Your task to perform on an android device: visit the assistant section in the google photos Image 0: 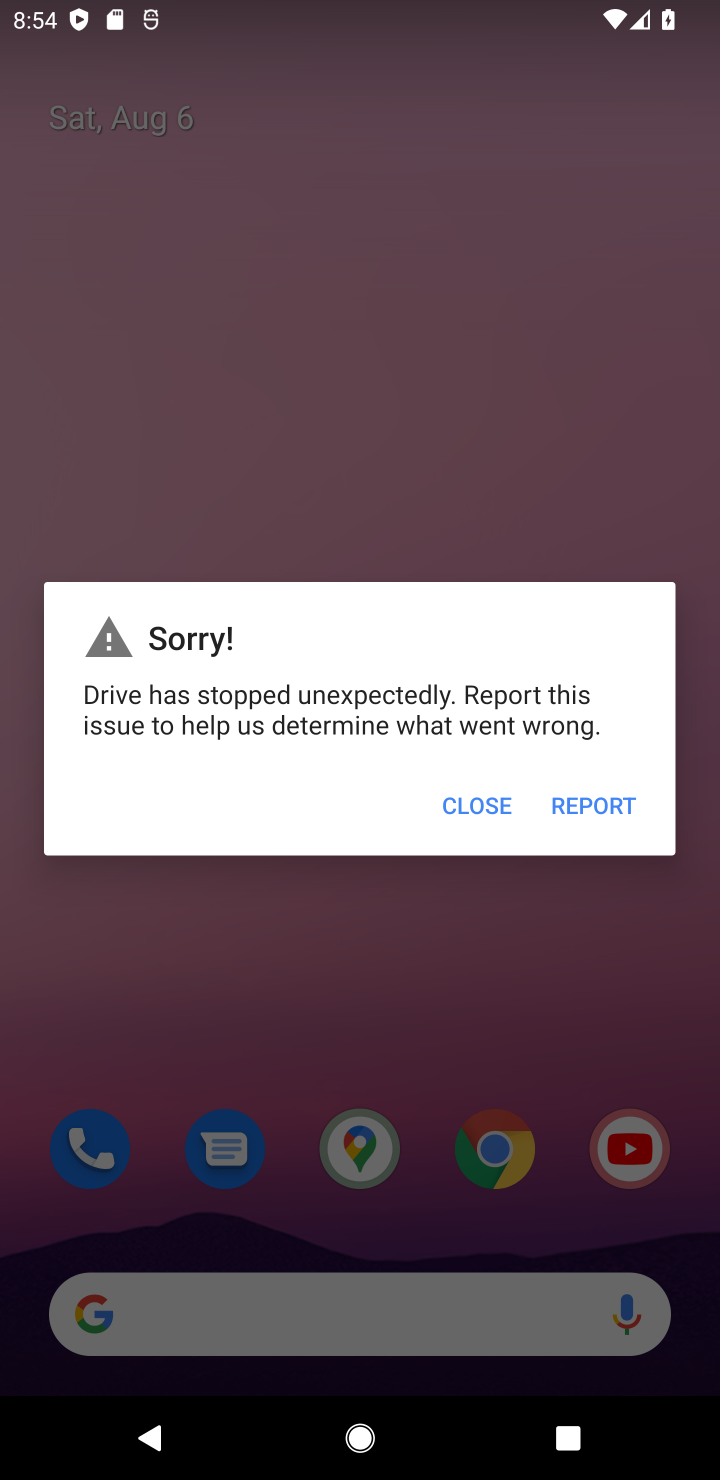
Step 0: click (480, 796)
Your task to perform on an android device: visit the assistant section in the google photos Image 1: 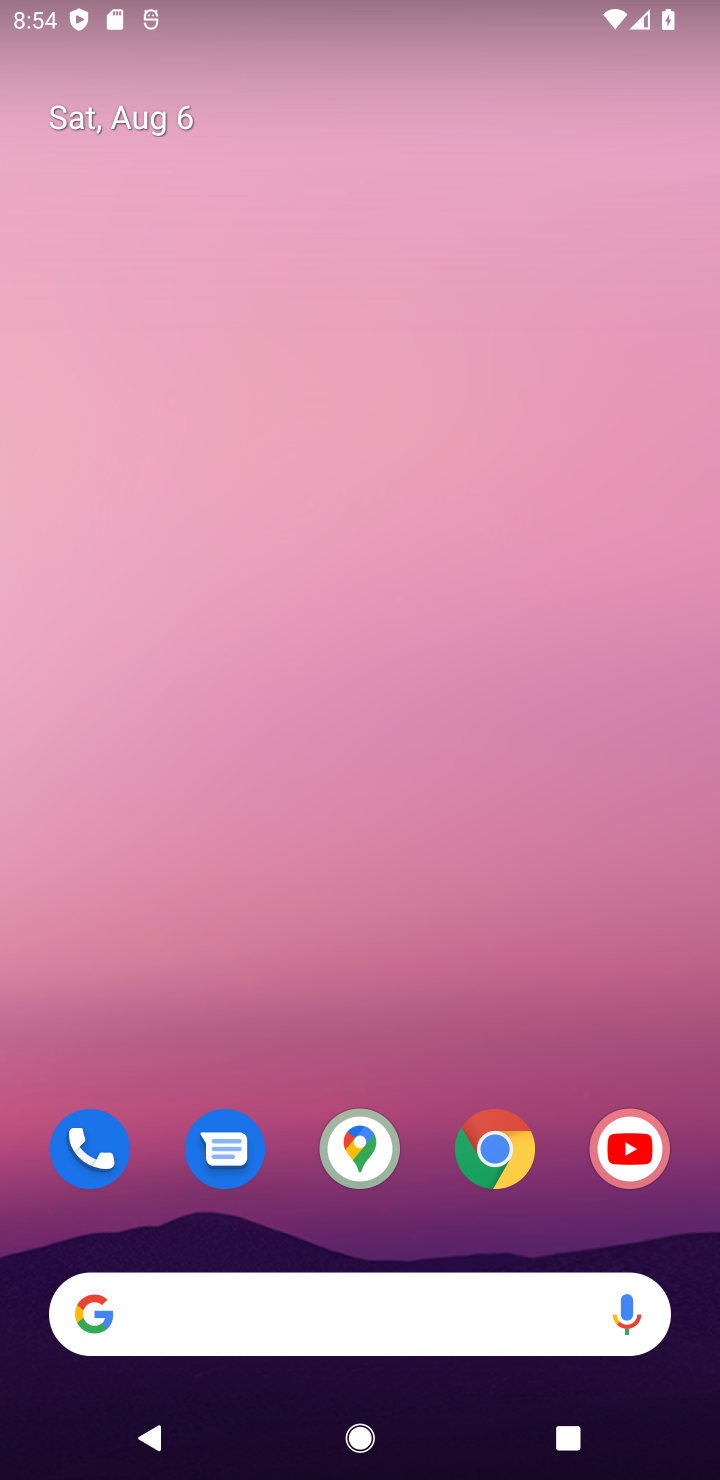
Step 1: drag from (338, 1323) to (111, 68)
Your task to perform on an android device: visit the assistant section in the google photos Image 2: 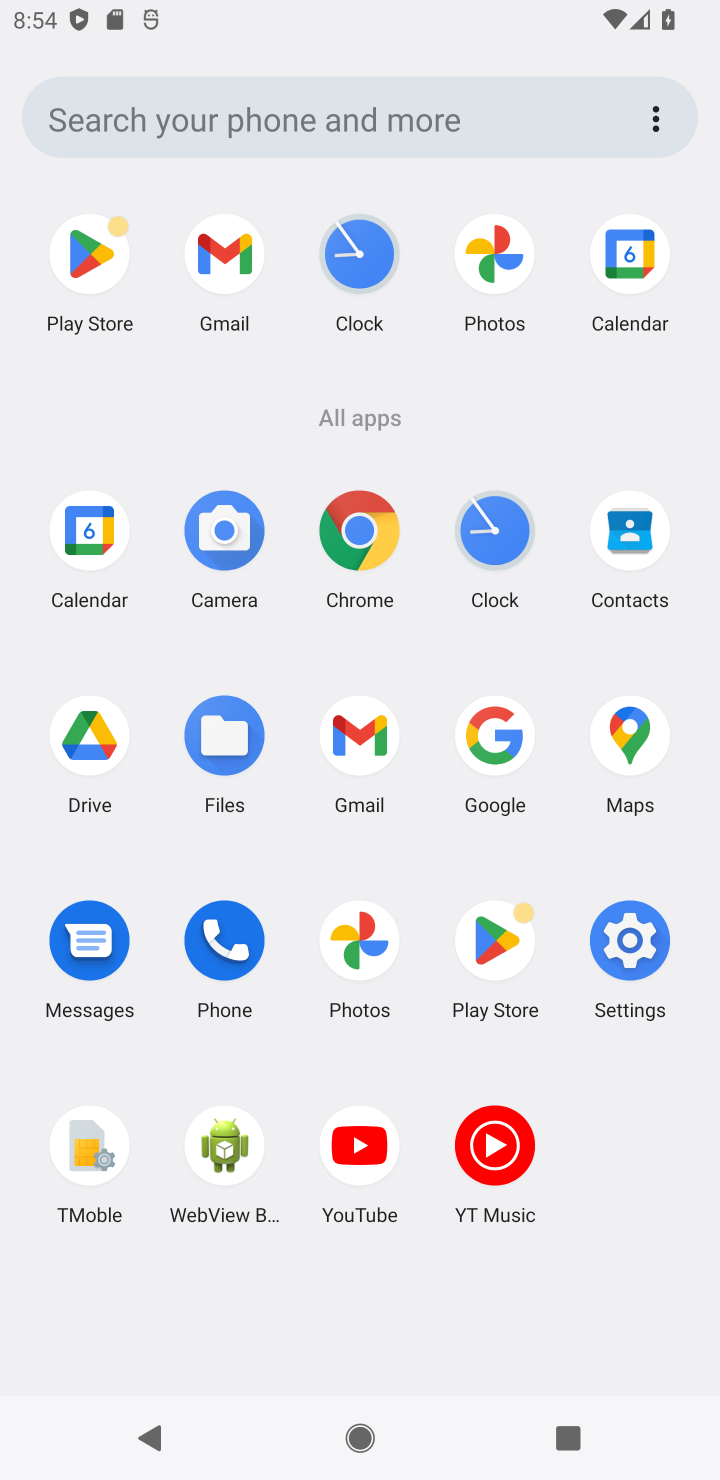
Step 2: click (391, 973)
Your task to perform on an android device: visit the assistant section in the google photos Image 3: 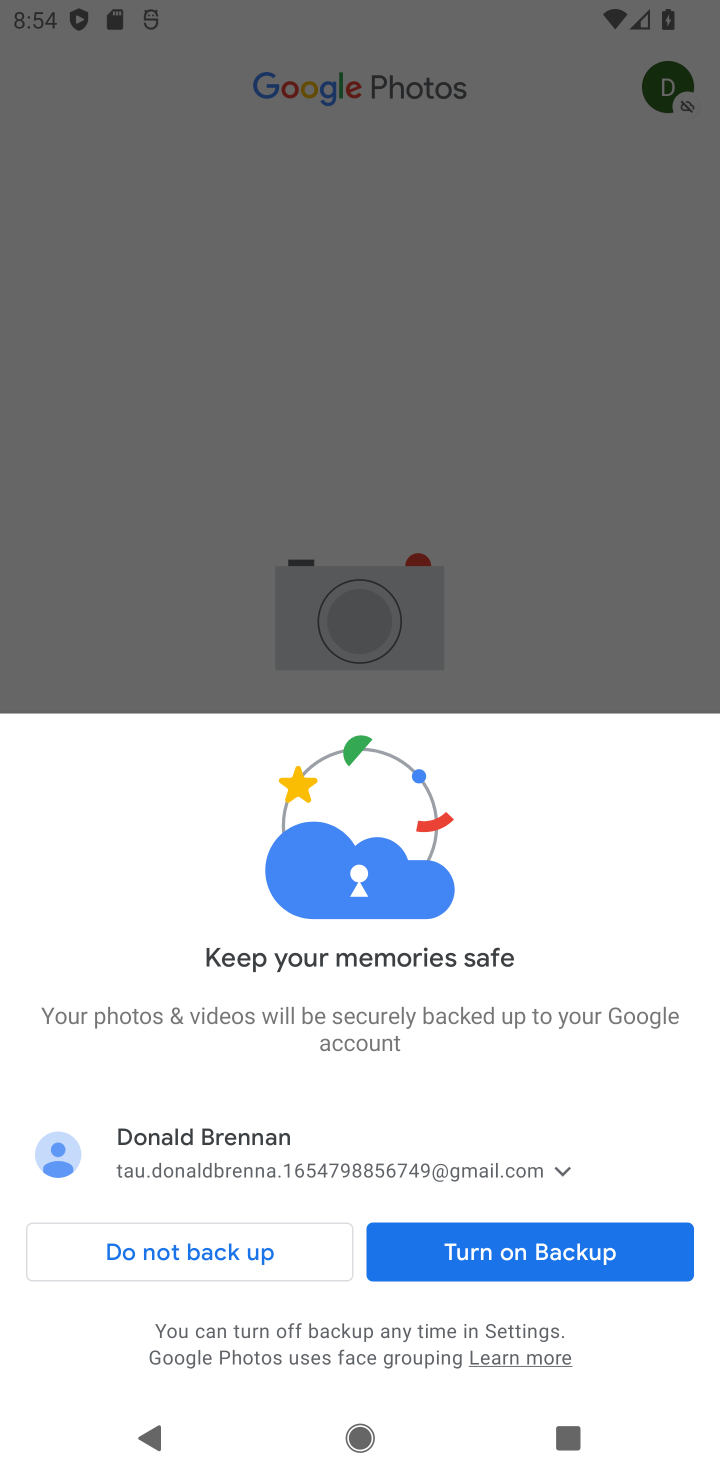
Step 3: click (428, 1275)
Your task to perform on an android device: visit the assistant section in the google photos Image 4: 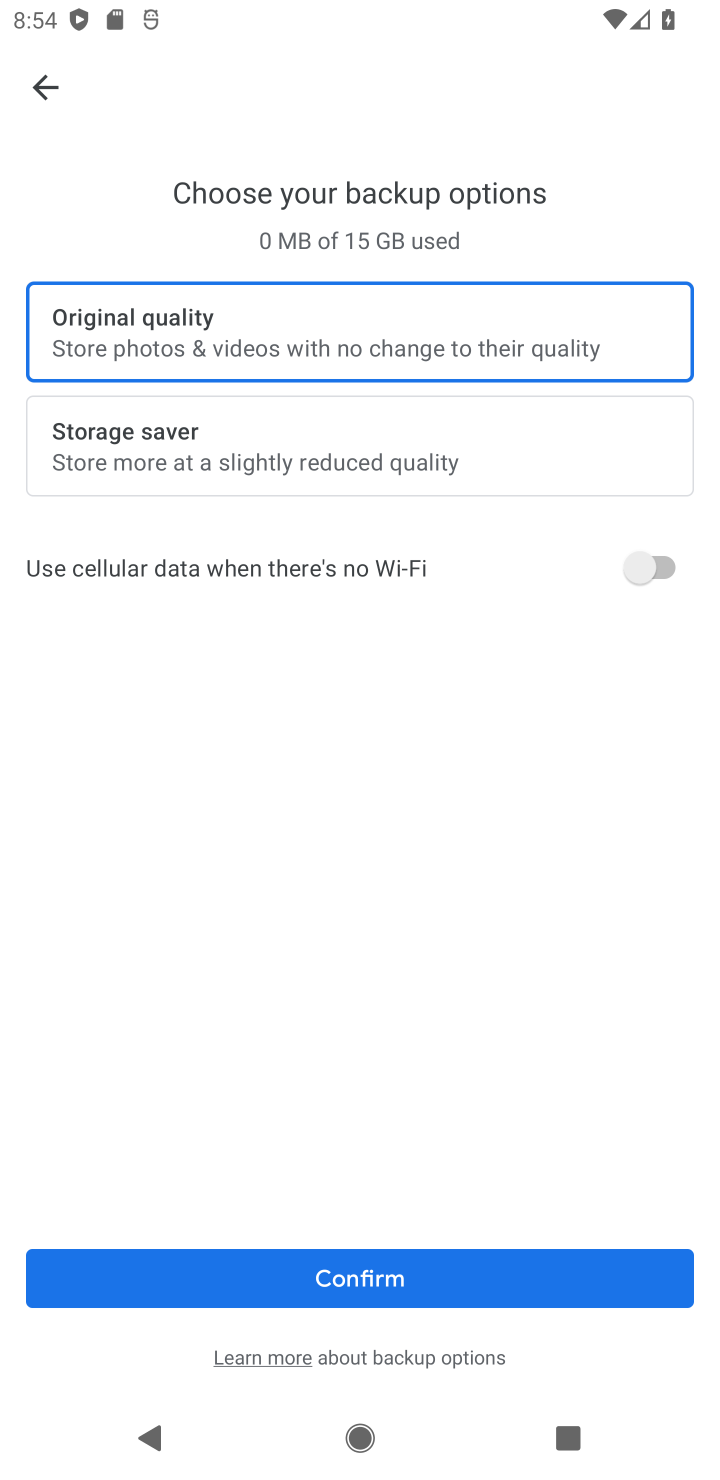
Step 4: click (339, 1275)
Your task to perform on an android device: visit the assistant section in the google photos Image 5: 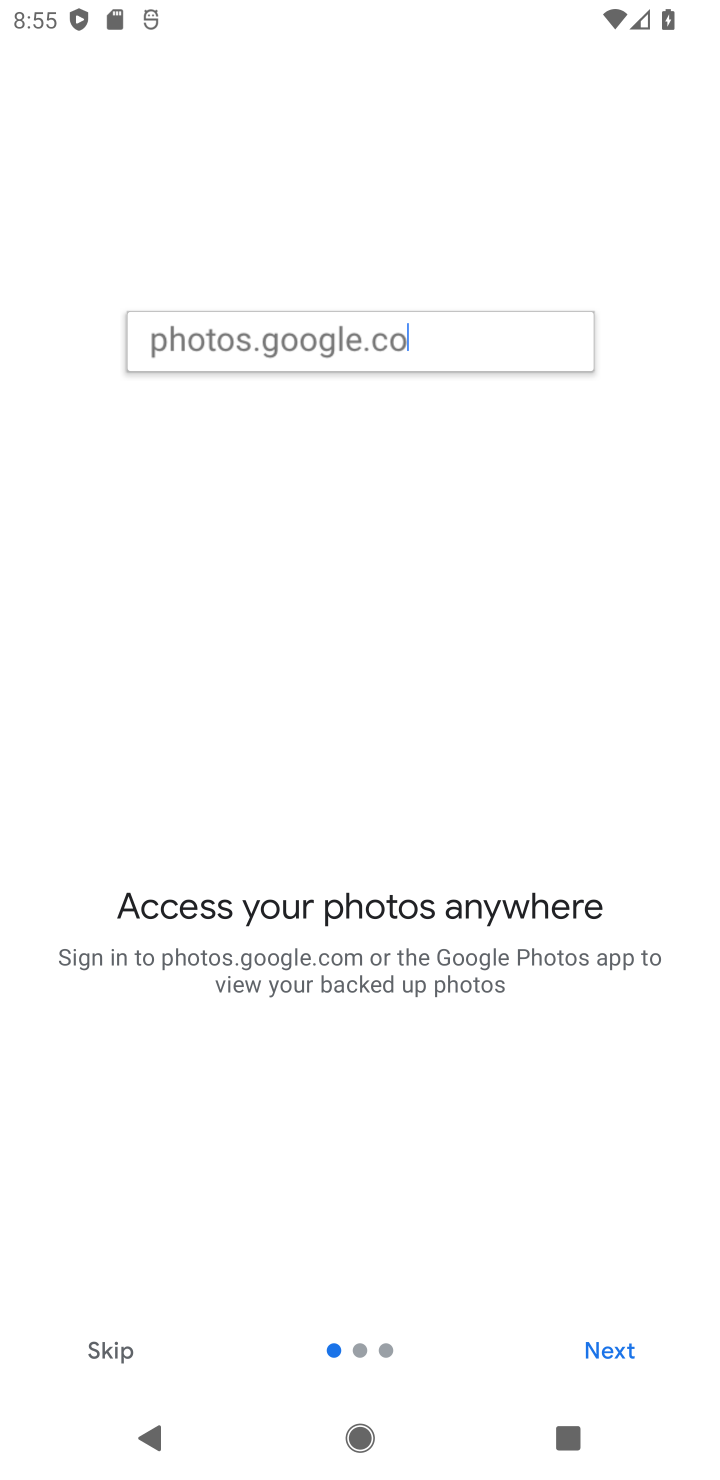
Step 5: click (88, 1359)
Your task to perform on an android device: visit the assistant section in the google photos Image 6: 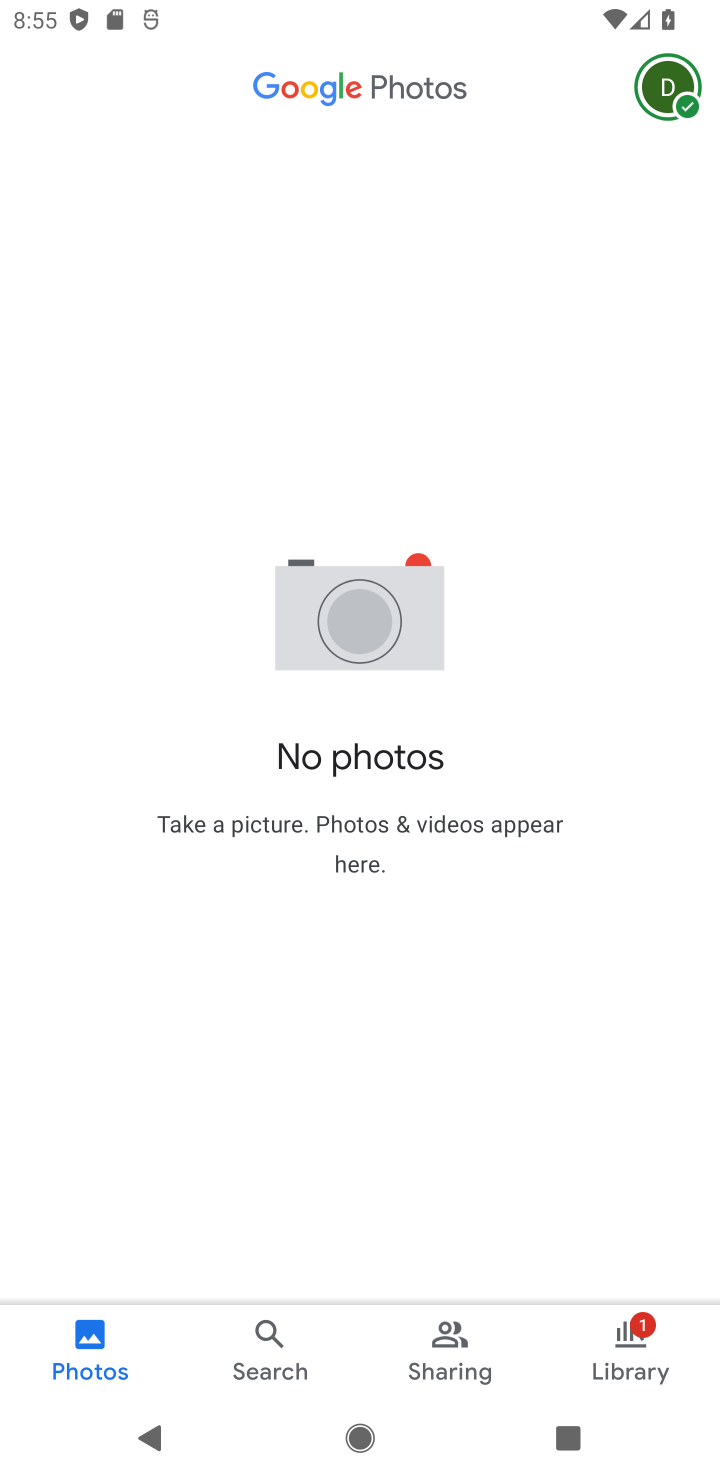
Step 6: task complete